Your task to perform on an android device: What's the weather? Image 0: 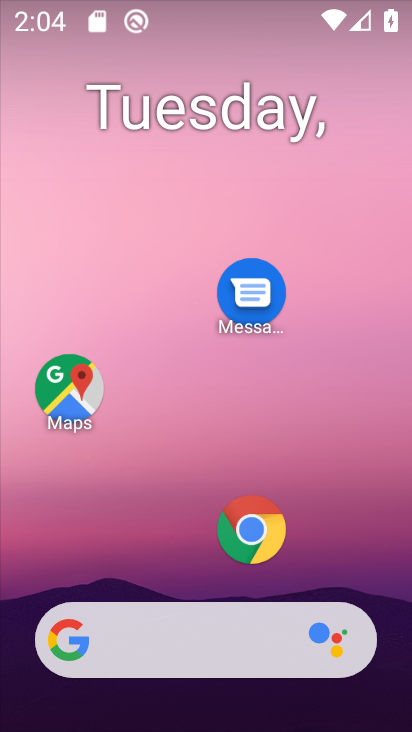
Step 0: drag from (164, 469) to (139, 160)
Your task to perform on an android device: What's the weather? Image 1: 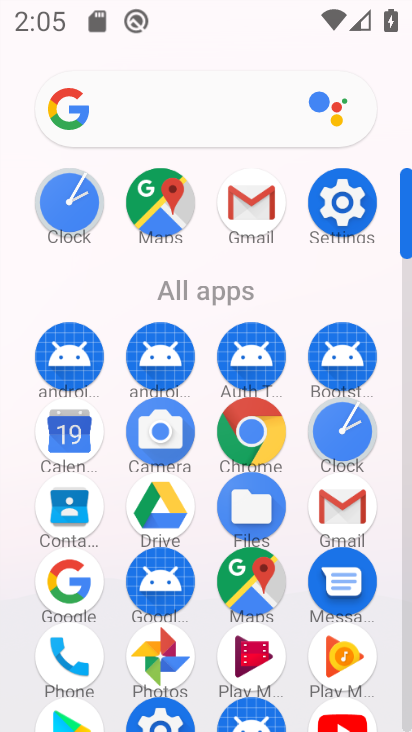
Step 1: click (68, 581)
Your task to perform on an android device: What's the weather? Image 2: 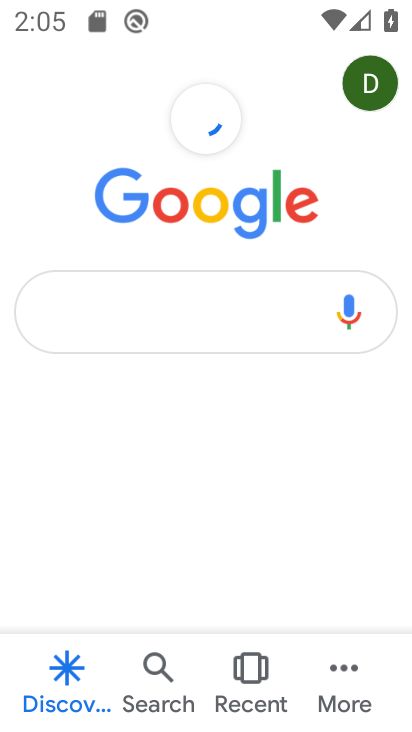
Step 2: click (188, 316)
Your task to perform on an android device: What's the weather? Image 3: 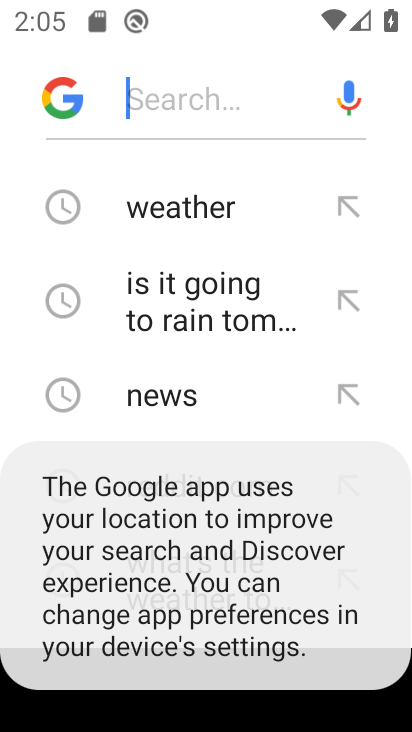
Step 3: click (156, 215)
Your task to perform on an android device: What's the weather? Image 4: 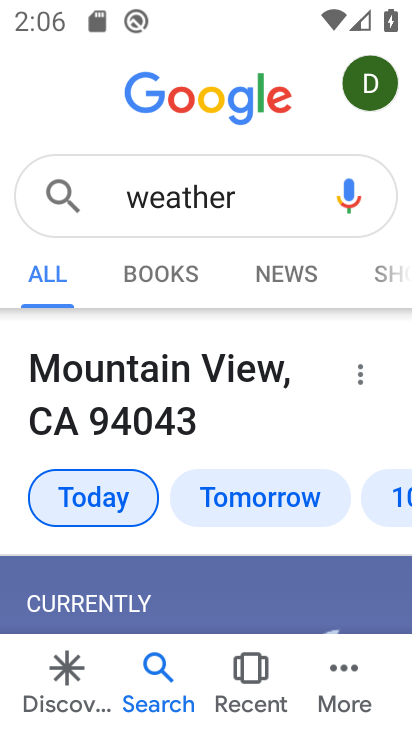
Step 4: task complete